Your task to perform on an android device: Go to accessibility settings Image 0: 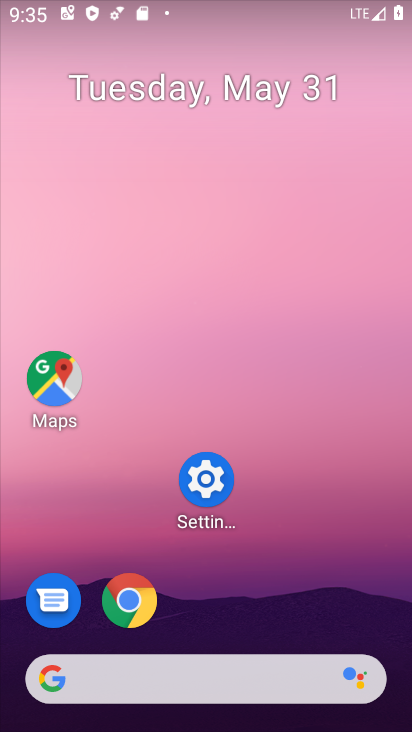
Step 0: press home button
Your task to perform on an android device: Go to accessibility settings Image 1: 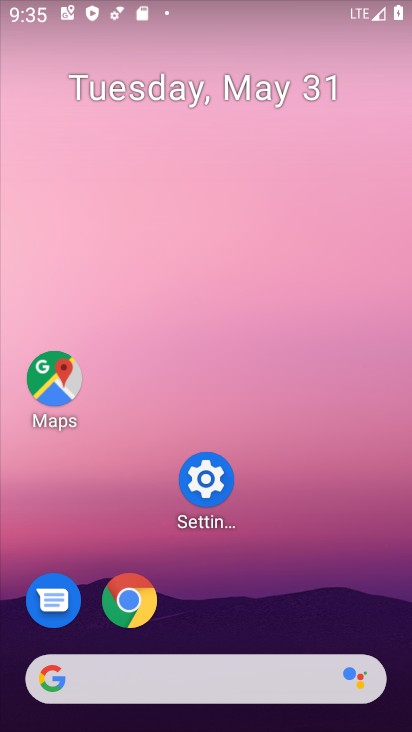
Step 1: drag from (223, 709) to (182, 431)
Your task to perform on an android device: Go to accessibility settings Image 2: 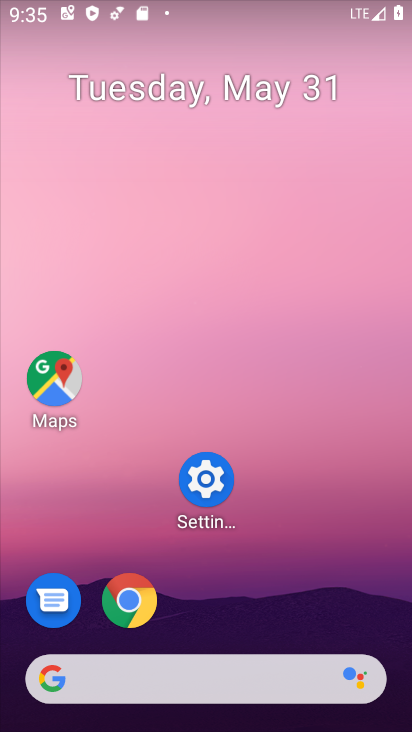
Step 2: click (214, 491)
Your task to perform on an android device: Go to accessibility settings Image 3: 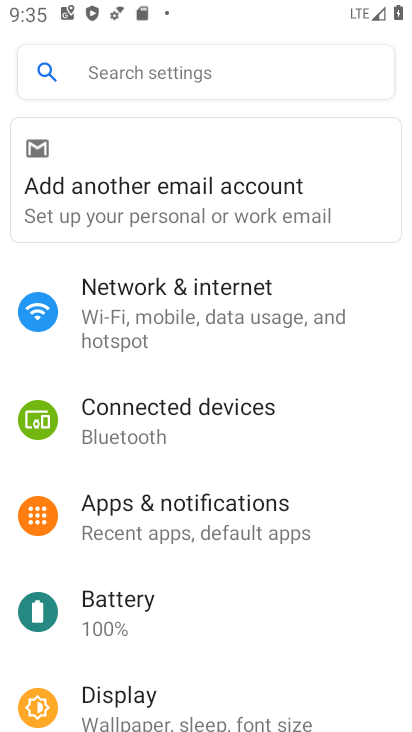
Step 3: click (165, 79)
Your task to perform on an android device: Go to accessibility settings Image 4: 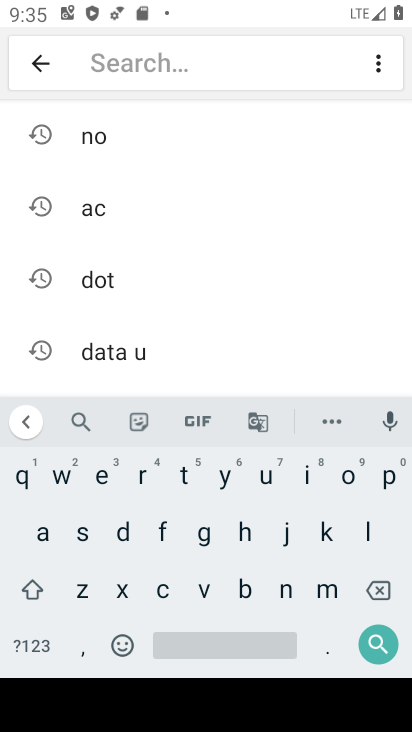
Step 4: click (39, 535)
Your task to perform on an android device: Go to accessibility settings Image 5: 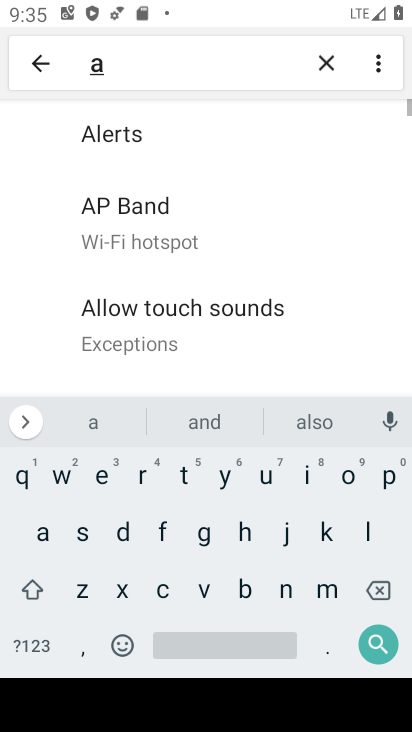
Step 5: click (155, 588)
Your task to perform on an android device: Go to accessibility settings Image 6: 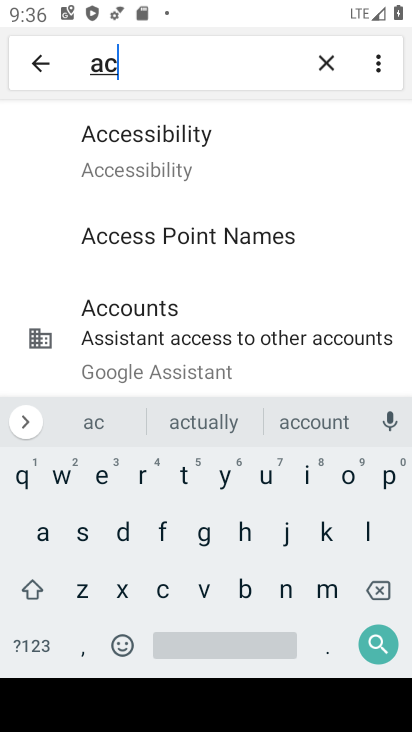
Step 6: click (141, 163)
Your task to perform on an android device: Go to accessibility settings Image 7: 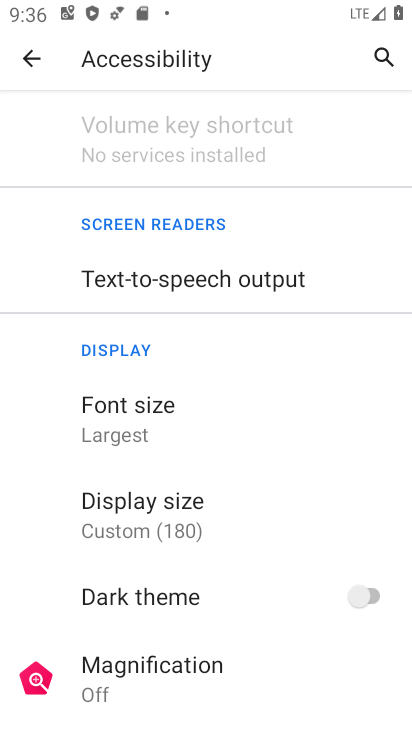
Step 7: task complete